Your task to perform on an android device: toggle translation in the chrome app Image 0: 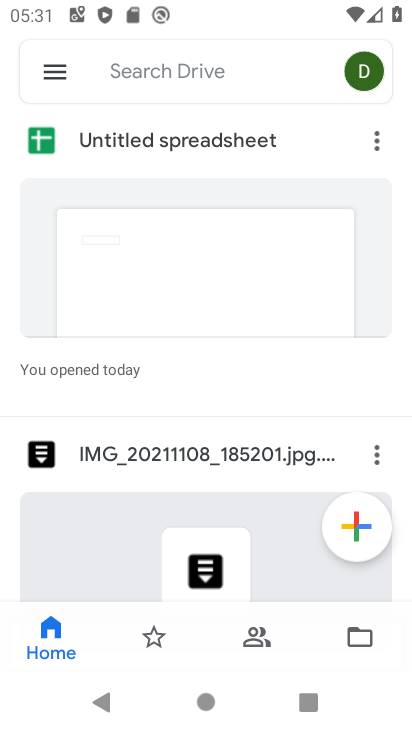
Step 0: press home button
Your task to perform on an android device: toggle translation in the chrome app Image 1: 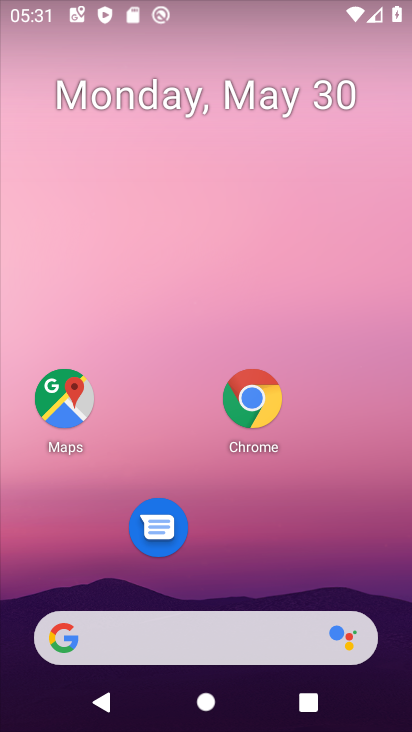
Step 1: click (249, 401)
Your task to perform on an android device: toggle translation in the chrome app Image 2: 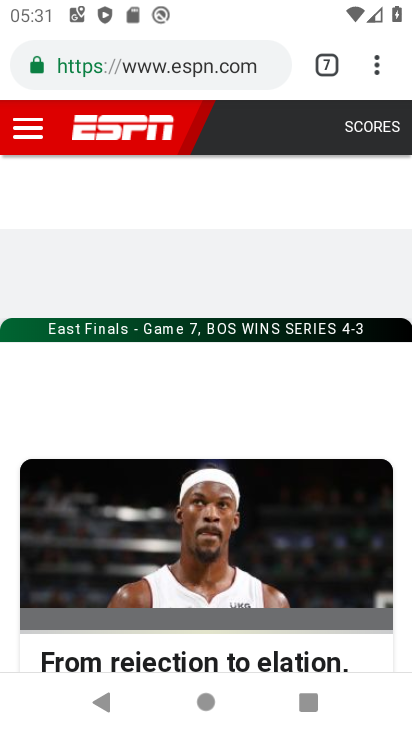
Step 2: click (378, 73)
Your task to perform on an android device: toggle translation in the chrome app Image 3: 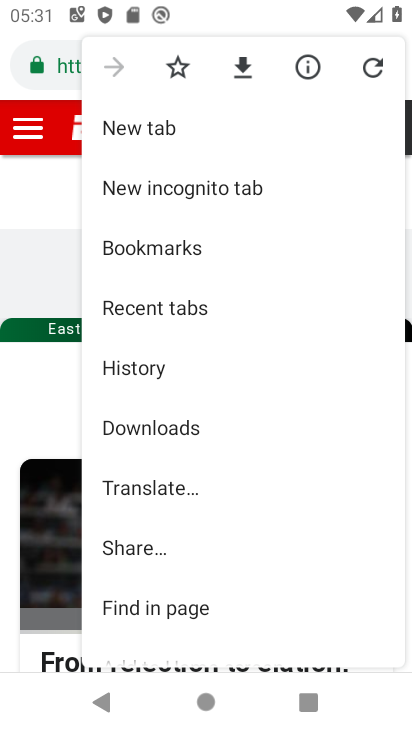
Step 3: drag from (156, 617) to (158, 119)
Your task to perform on an android device: toggle translation in the chrome app Image 4: 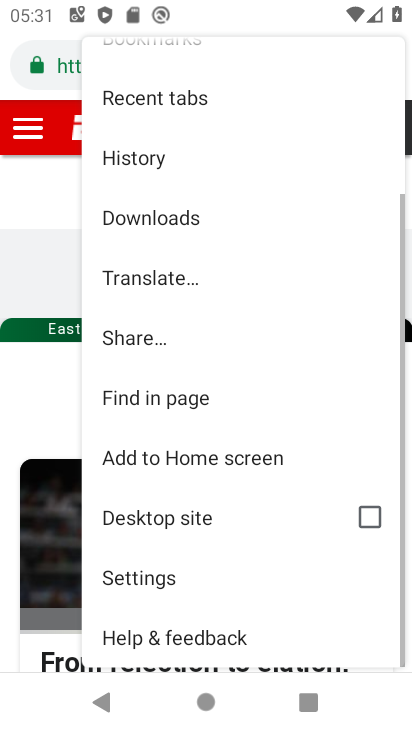
Step 4: click (154, 577)
Your task to perform on an android device: toggle translation in the chrome app Image 5: 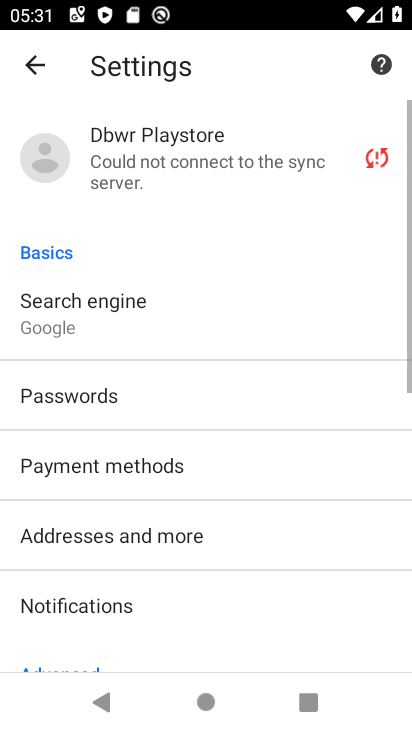
Step 5: drag from (147, 613) to (148, 252)
Your task to perform on an android device: toggle translation in the chrome app Image 6: 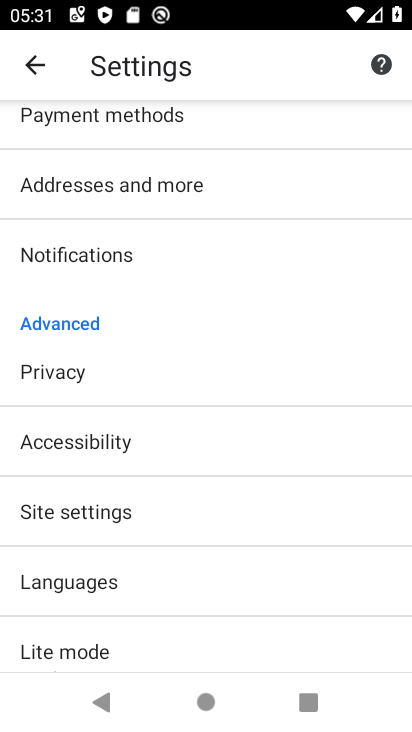
Step 6: click (93, 583)
Your task to perform on an android device: toggle translation in the chrome app Image 7: 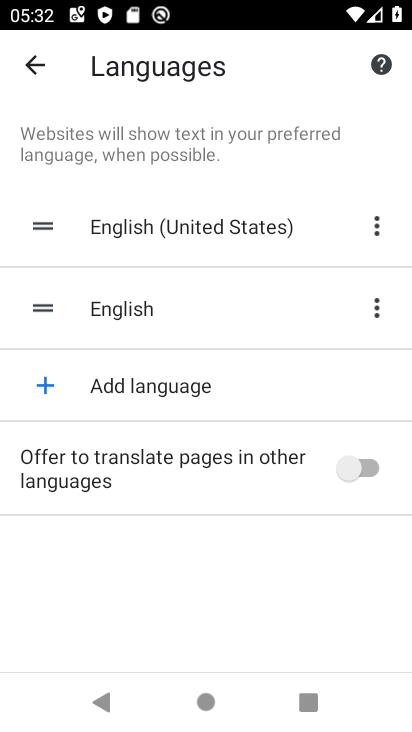
Step 7: click (380, 469)
Your task to perform on an android device: toggle translation in the chrome app Image 8: 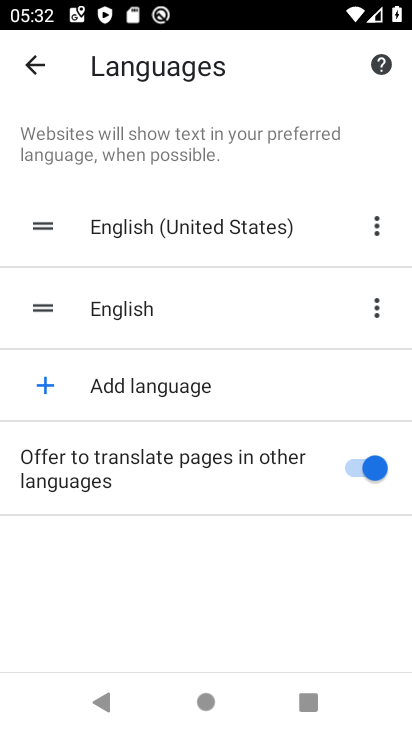
Step 8: task complete